Your task to perform on an android device: move an email to a new category in the gmail app Image 0: 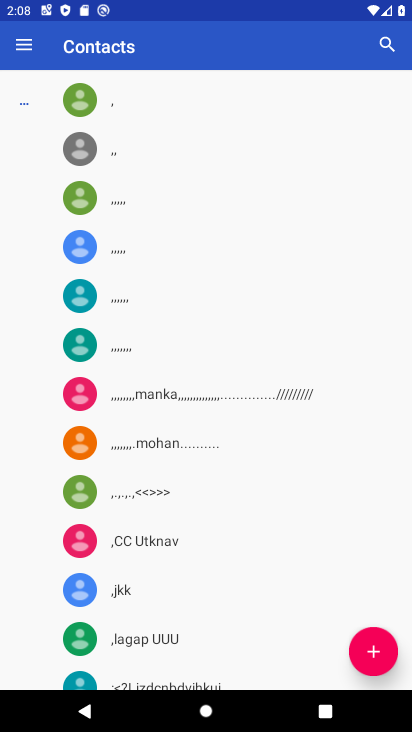
Step 0: press back button
Your task to perform on an android device: move an email to a new category in the gmail app Image 1: 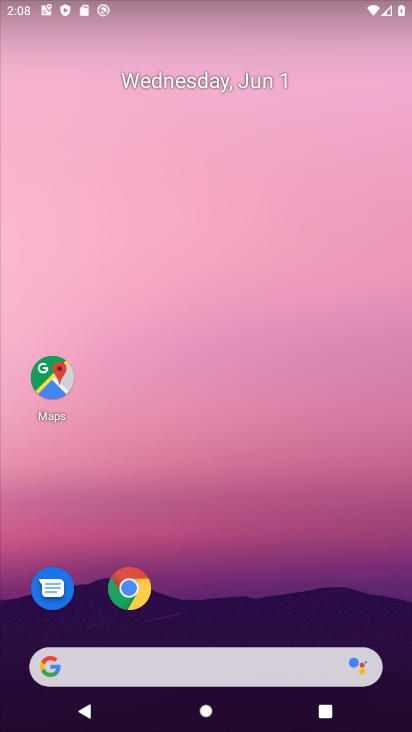
Step 1: drag from (238, 601) to (294, 55)
Your task to perform on an android device: move an email to a new category in the gmail app Image 2: 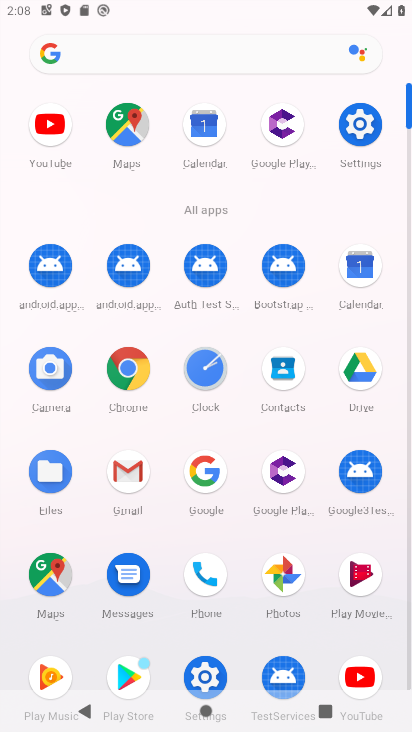
Step 2: click (121, 475)
Your task to perform on an android device: move an email to a new category in the gmail app Image 3: 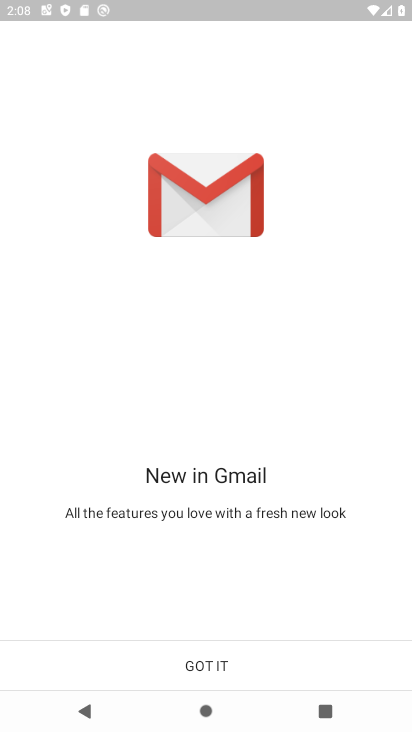
Step 3: click (201, 665)
Your task to perform on an android device: move an email to a new category in the gmail app Image 4: 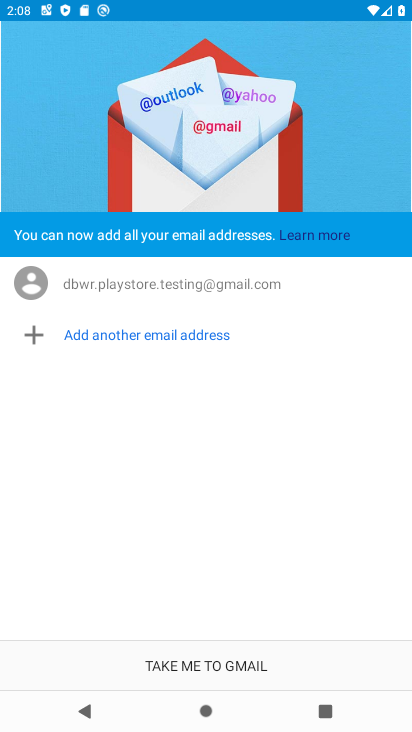
Step 4: click (202, 661)
Your task to perform on an android device: move an email to a new category in the gmail app Image 5: 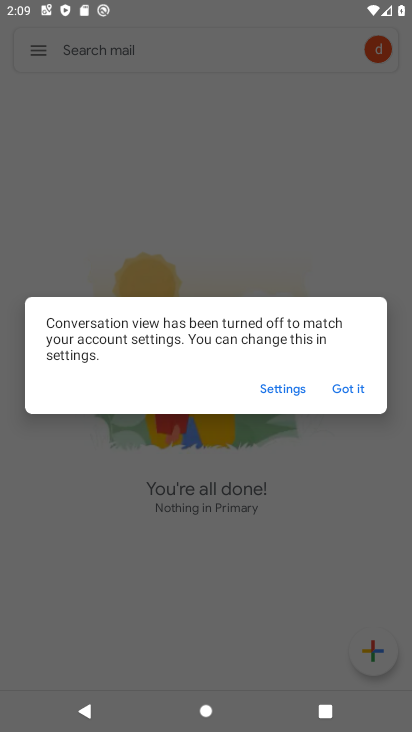
Step 5: click (350, 388)
Your task to perform on an android device: move an email to a new category in the gmail app Image 6: 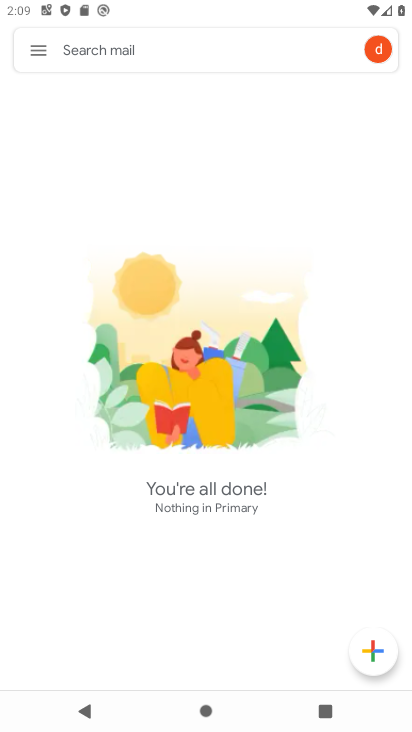
Step 6: click (28, 45)
Your task to perform on an android device: move an email to a new category in the gmail app Image 7: 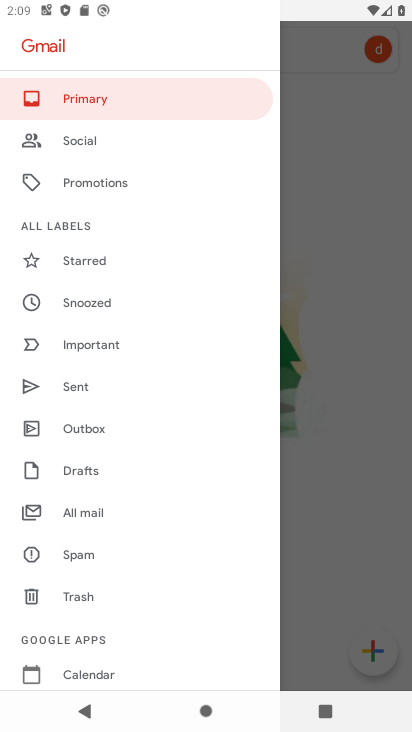
Step 7: click (77, 509)
Your task to perform on an android device: move an email to a new category in the gmail app Image 8: 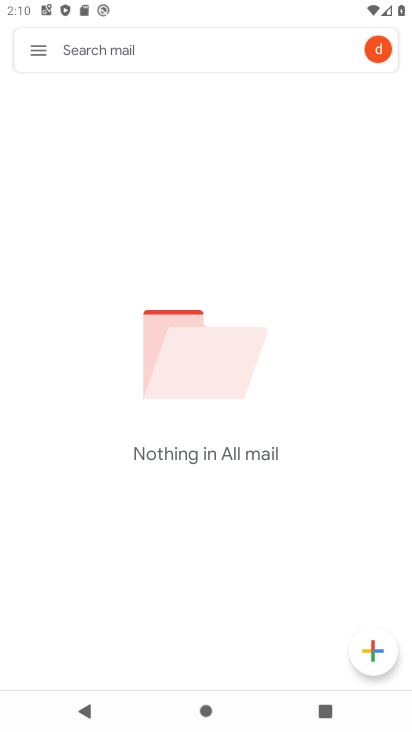
Step 8: task complete